Your task to perform on an android device: change the clock display to digital Image 0: 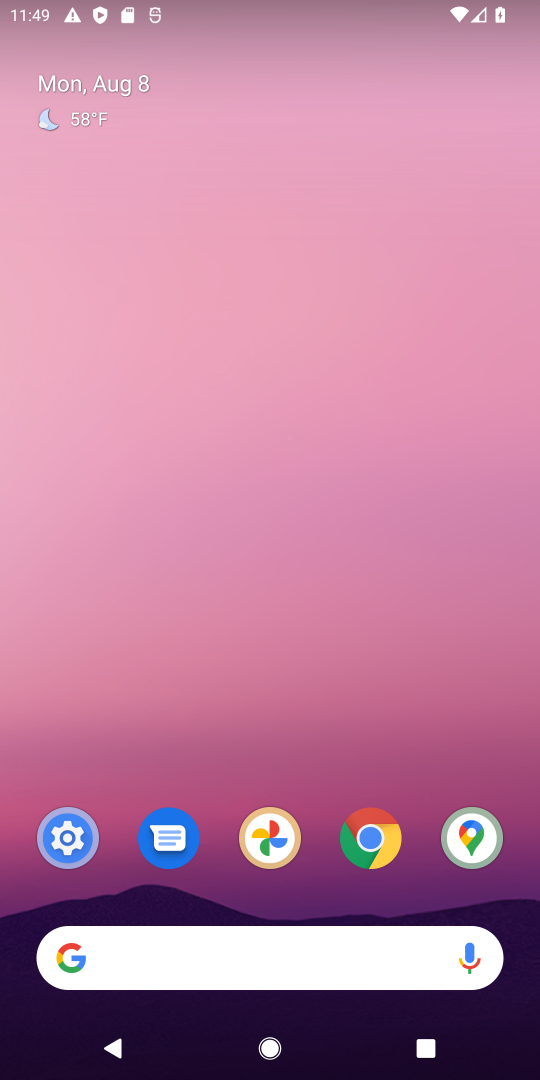
Step 0: press home button
Your task to perform on an android device: change the clock display to digital Image 1: 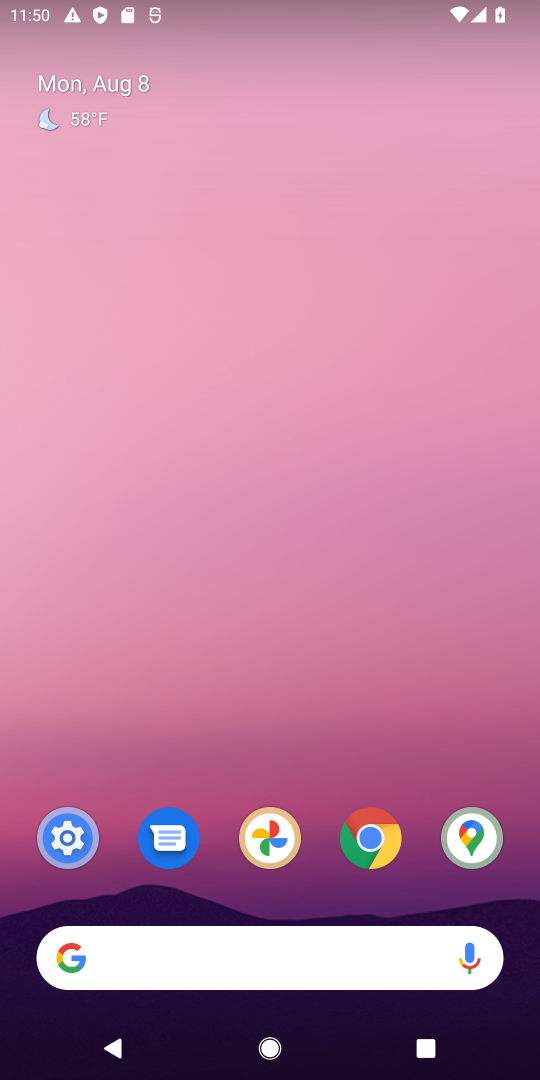
Step 1: drag from (337, 898) to (300, 310)
Your task to perform on an android device: change the clock display to digital Image 2: 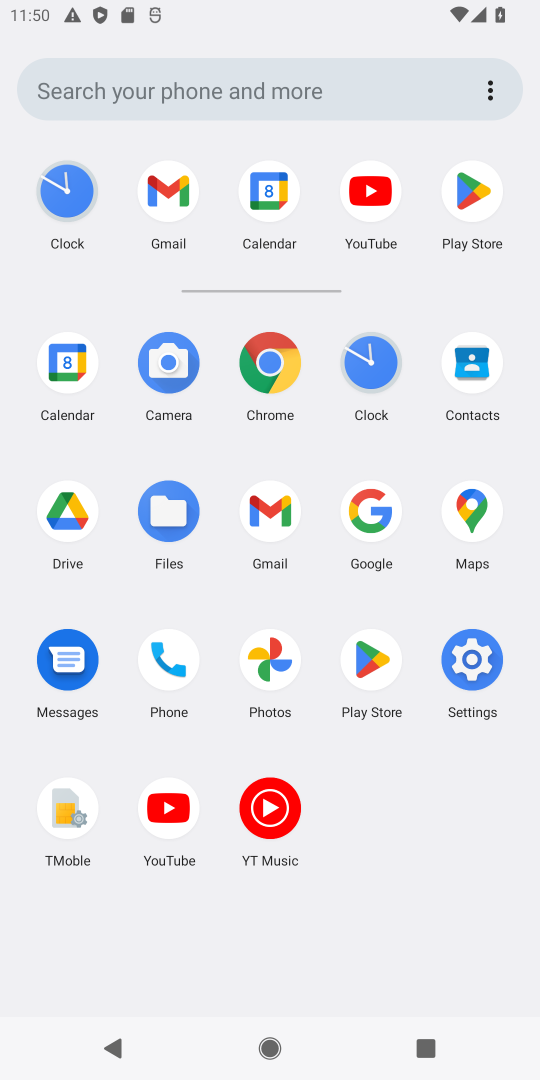
Step 2: click (384, 365)
Your task to perform on an android device: change the clock display to digital Image 3: 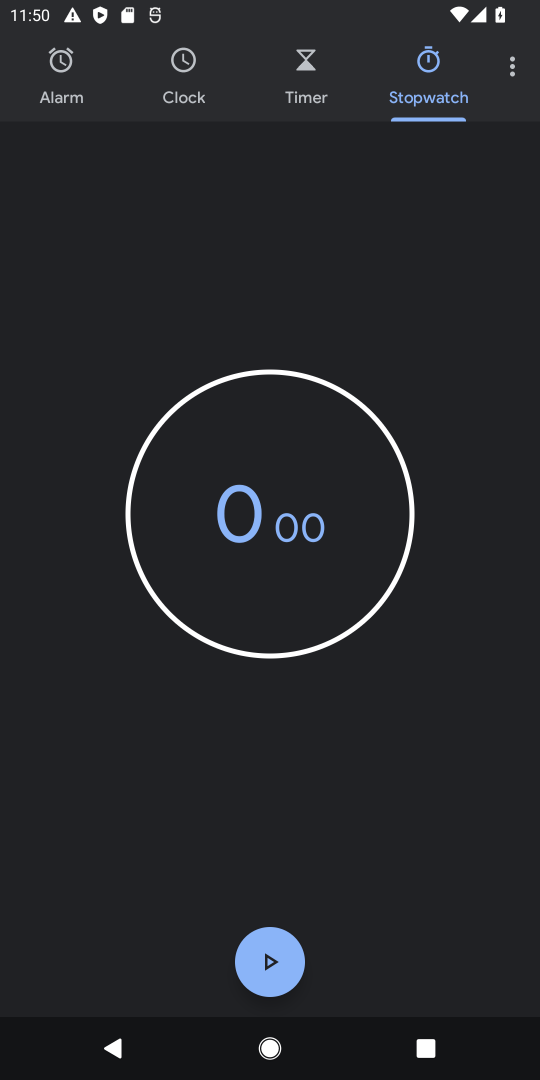
Step 3: click (518, 83)
Your task to perform on an android device: change the clock display to digital Image 4: 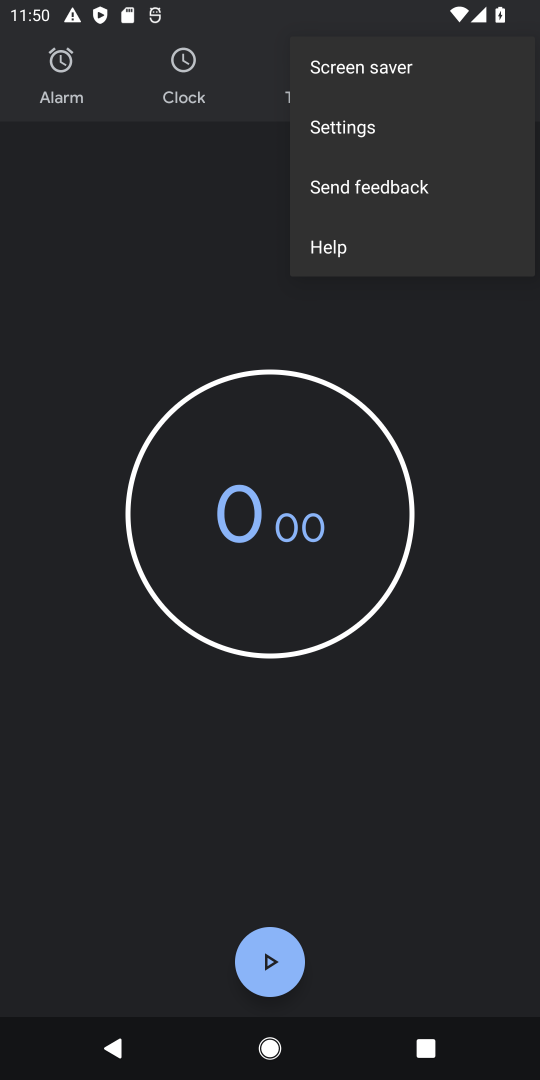
Step 4: click (331, 129)
Your task to perform on an android device: change the clock display to digital Image 5: 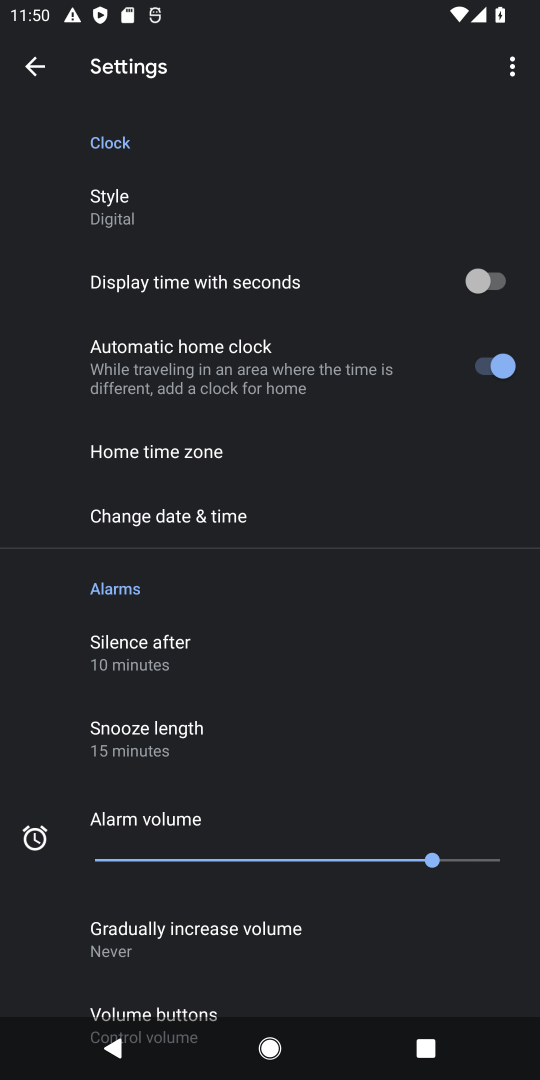
Step 5: click (118, 216)
Your task to perform on an android device: change the clock display to digital Image 6: 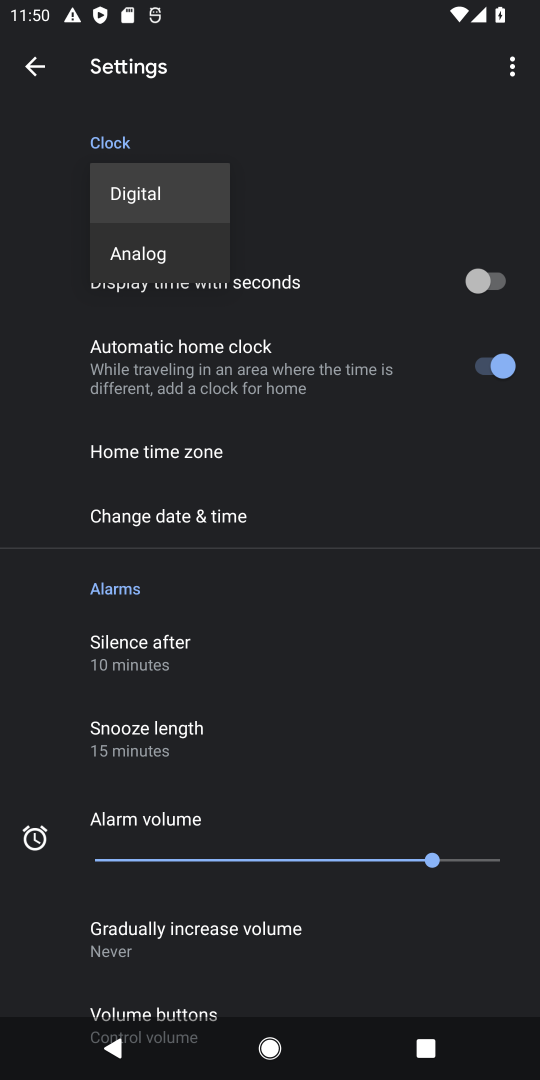
Step 6: task complete